Your task to perform on an android device: Go to Google maps Image 0: 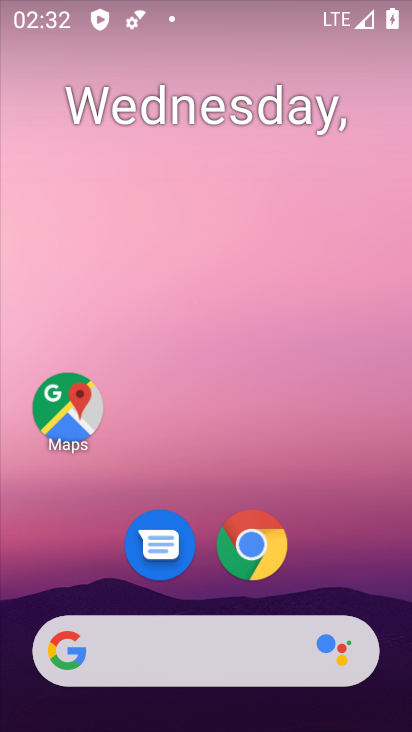
Step 0: drag from (190, 594) to (192, 255)
Your task to perform on an android device: Go to Google maps Image 1: 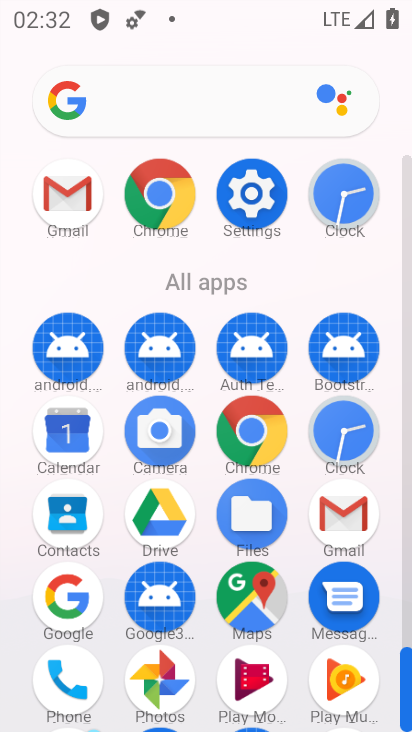
Step 1: click (240, 605)
Your task to perform on an android device: Go to Google maps Image 2: 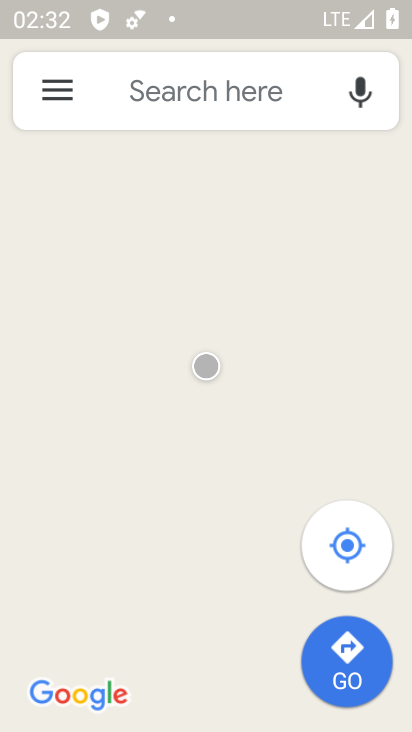
Step 2: task complete